Your task to perform on an android device: Open my contact list Image 0: 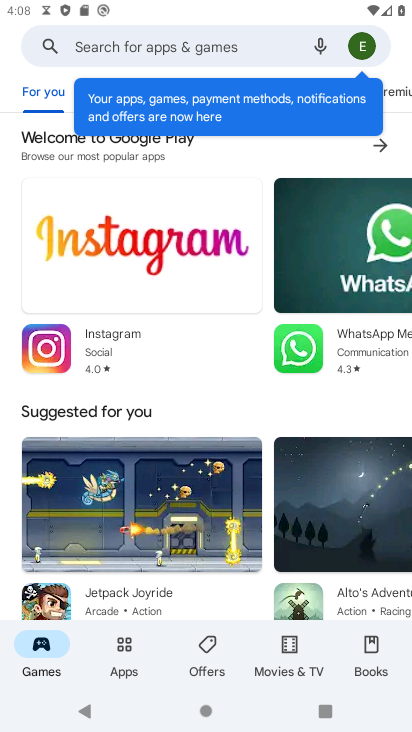
Step 0: press home button
Your task to perform on an android device: Open my contact list Image 1: 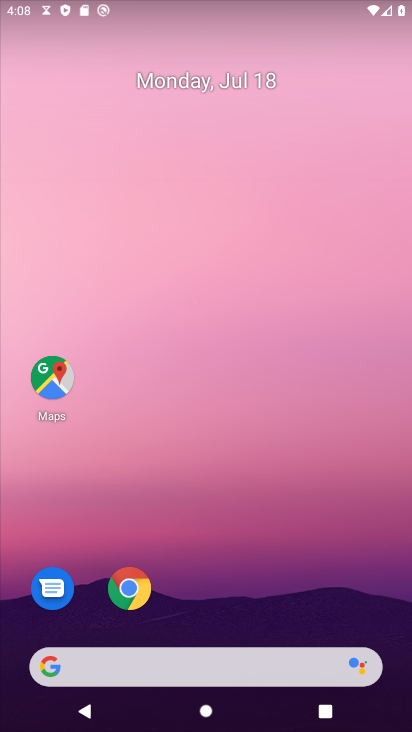
Step 1: drag from (39, 700) to (322, 127)
Your task to perform on an android device: Open my contact list Image 2: 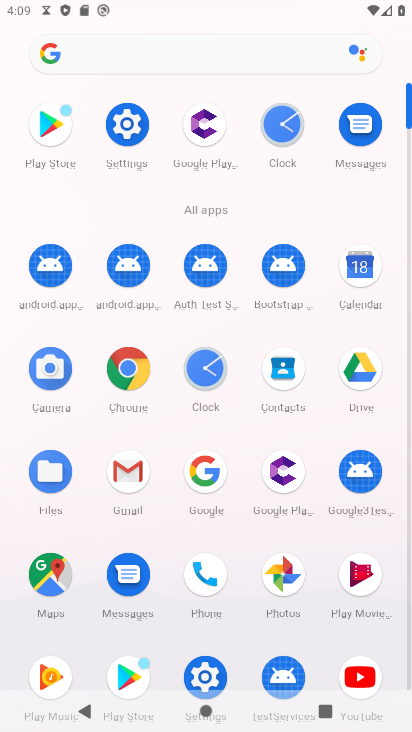
Step 2: click (194, 578)
Your task to perform on an android device: Open my contact list Image 3: 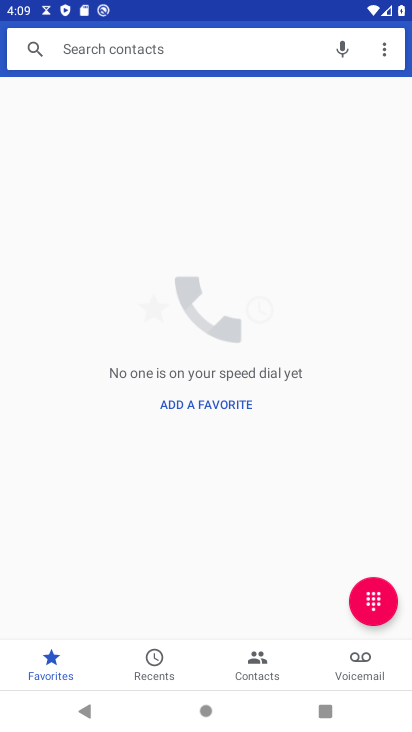
Step 3: click (256, 660)
Your task to perform on an android device: Open my contact list Image 4: 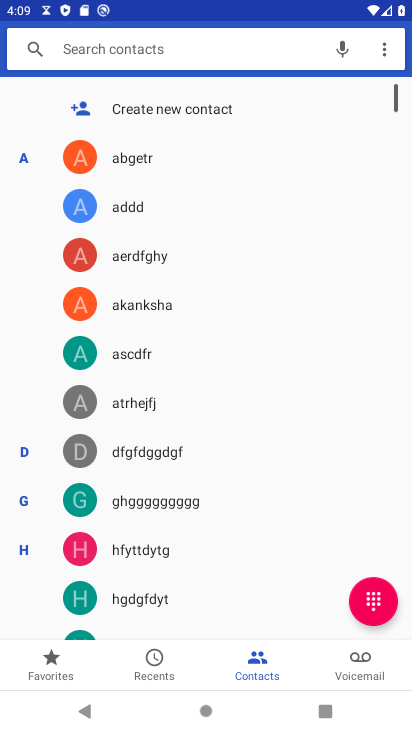
Step 4: task complete